Your task to perform on an android device: change the clock display to analog Image 0: 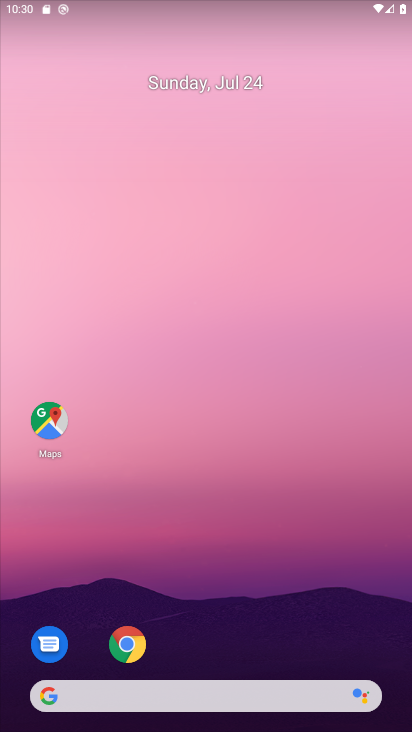
Step 0: drag from (226, 606) to (184, 158)
Your task to perform on an android device: change the clock display to analog Image 1: 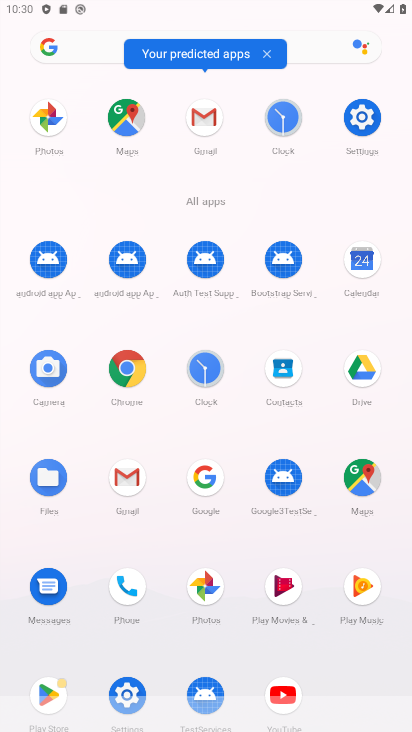
Step 1: click (198, 368)
Your task to perform on an android device: change the clock display to analog Image 2: 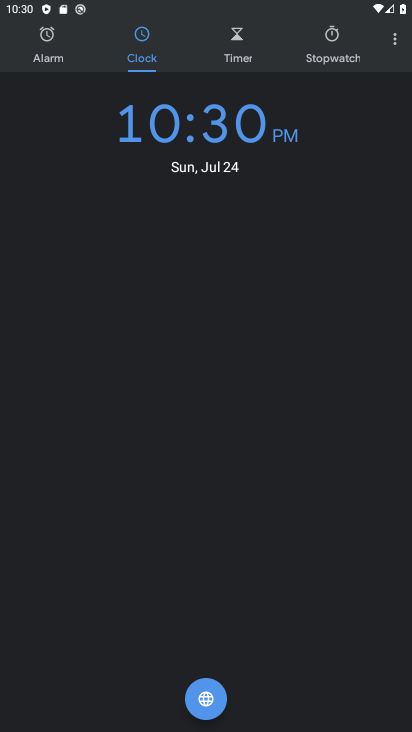
Step 2: click (398, 28)
Your task to perform on an android device: change the clock display to analog Image 3: 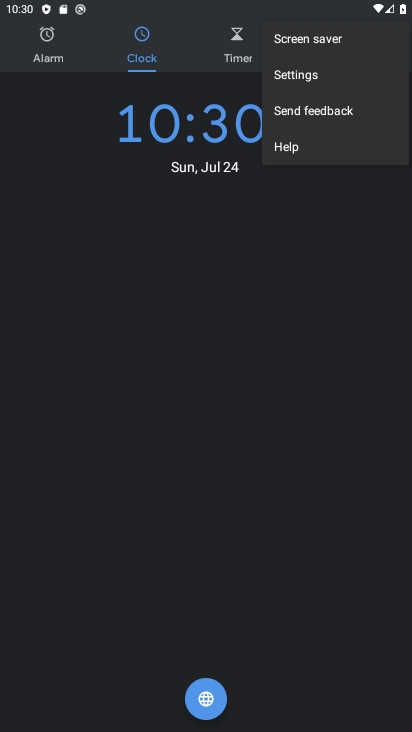
Step 3: click (291, 46)
Your task to perform on an android device: change the clock display to analog Image 4: 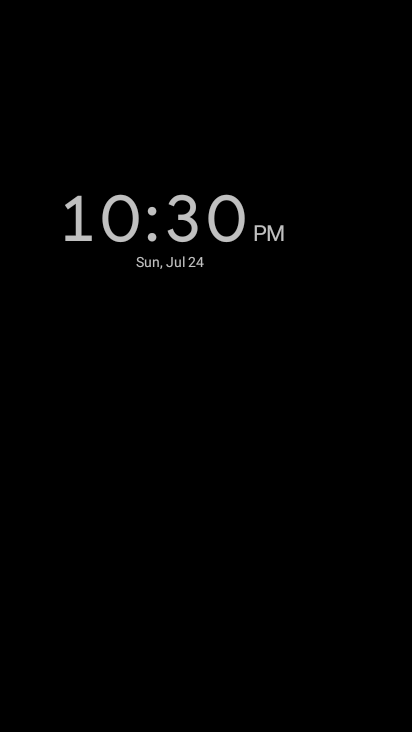
Step 4: press back button
Your task to perform on an android device: change the clock display to analog Image 5: 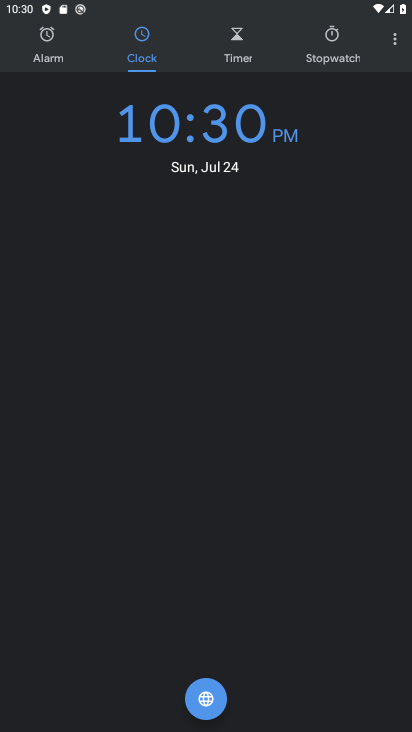
Step 5: click (389, 31)
Your task to perform on an android device: change the clock display to analog Image 6: 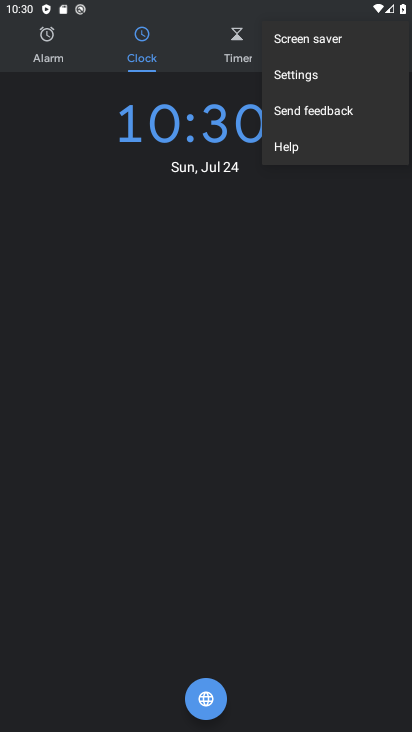
Step 6: click (316, 71)
Your task to perform on an android device: change the clock display to analog Image 7: 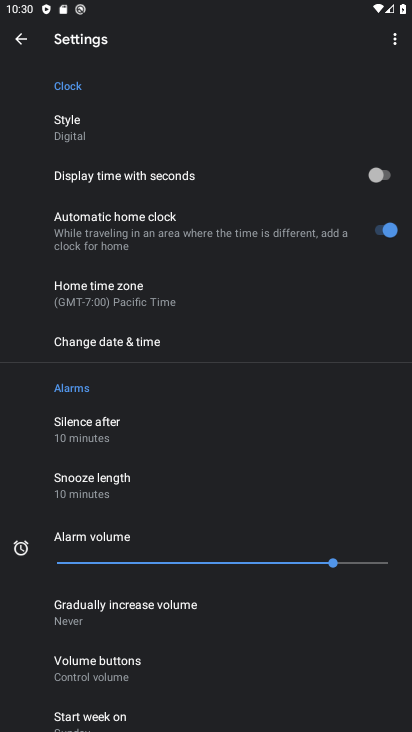
Step 7: click (76, 123)
Your task to perform on an android device: change the clock display to analog Image 8: 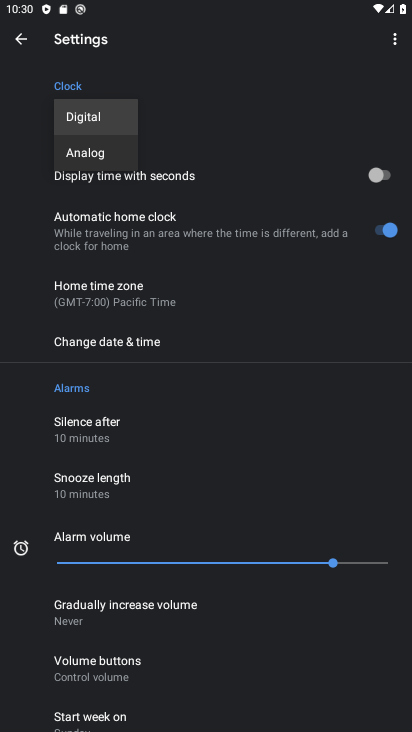
Step 8: click (80, 150)
Your task to perform on an android device: change the clock display to analog Image 9: 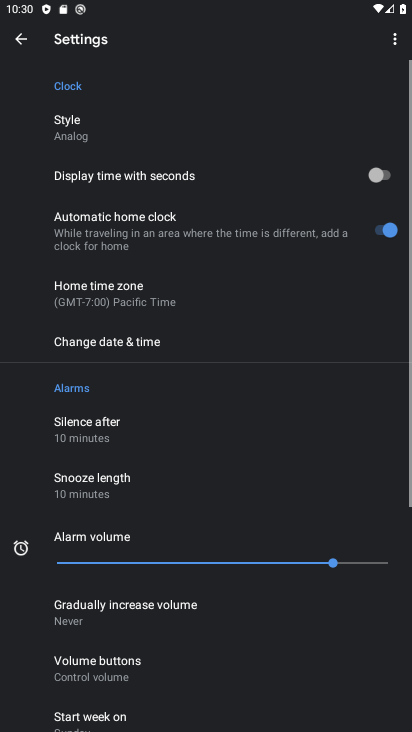
Step 9: task complete